Your task to perform on an android device: check battery use Image 0: 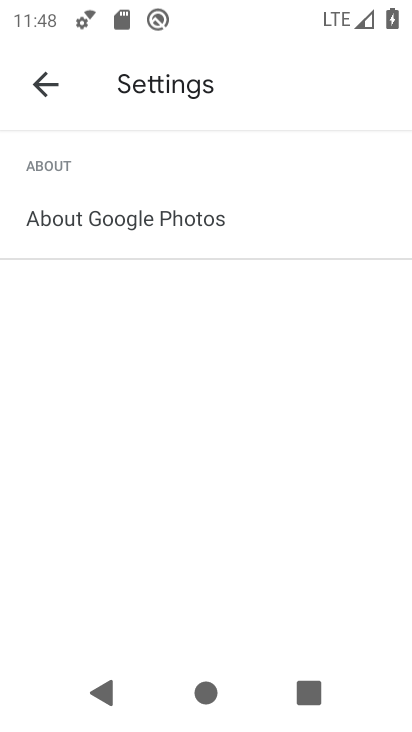
Step 0: press home button
Your task to perform on an android device: check battery use Image 1: 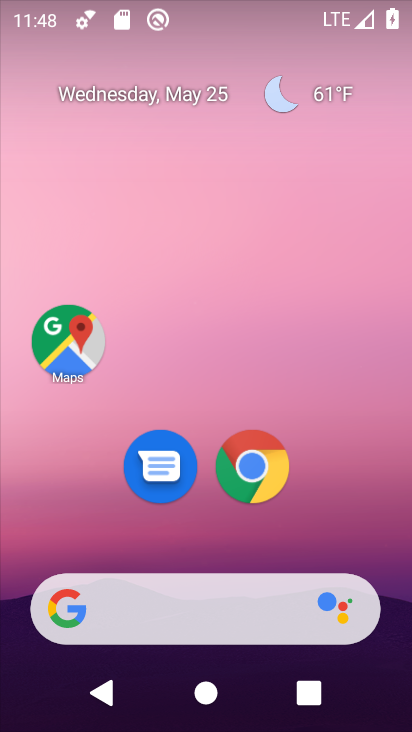
Step 1: drag from (188, 552) to (225, 64)
Your task to perform on an android device: check battery use Image 2: 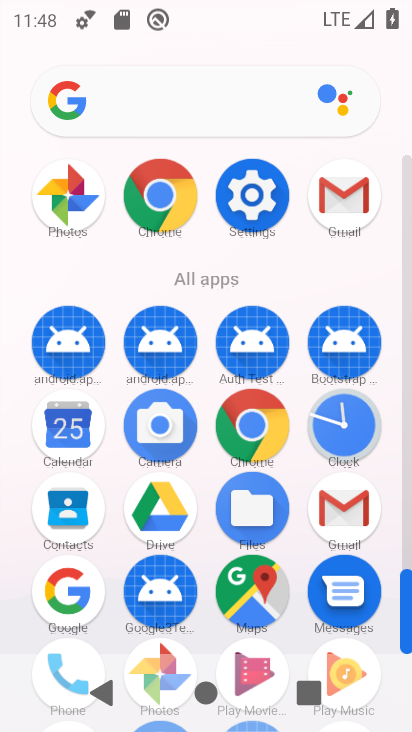
Step 2: click (243, 200)
Your task to perform on an android device: check battery use Image 3: 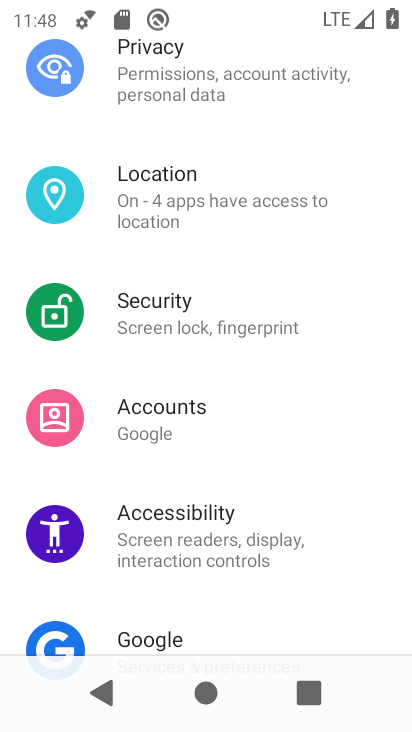
Step 3: drag from (251, 210) to (272, 494)
Your task to perform on an android device: check battery use Image 4: 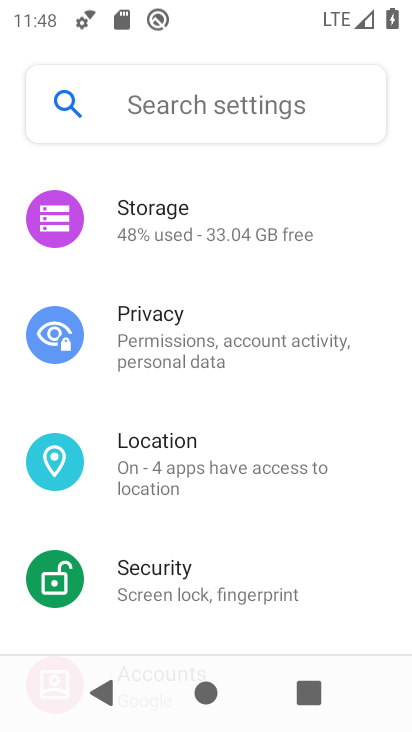
Step 4: drag from (247, 266) to (280, 532)
Your task to perform on an android device: check battery use Image 5: 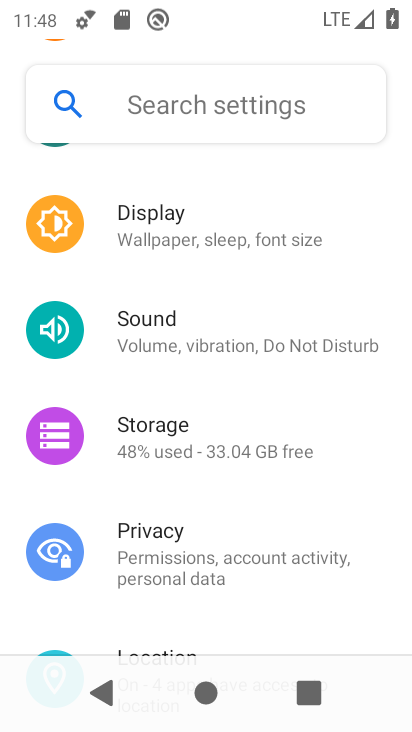
Step 5: drag from (226, 265) to (249, 541)
Your task to perform on an android device: check battery use Image 6: 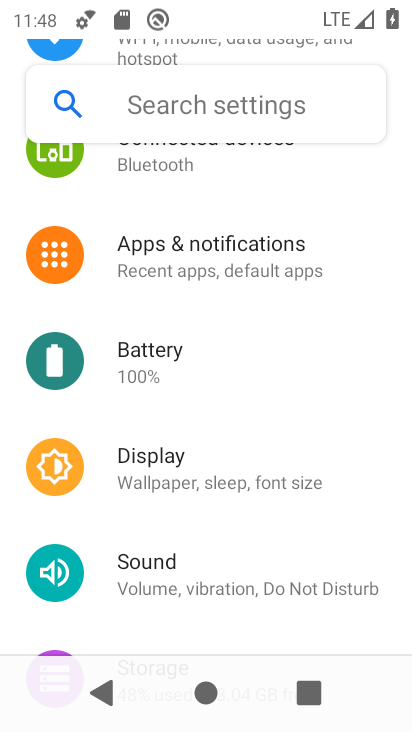
Step 6: click (170, 353)
Your task to perform on an android device: check battery use Image 7: 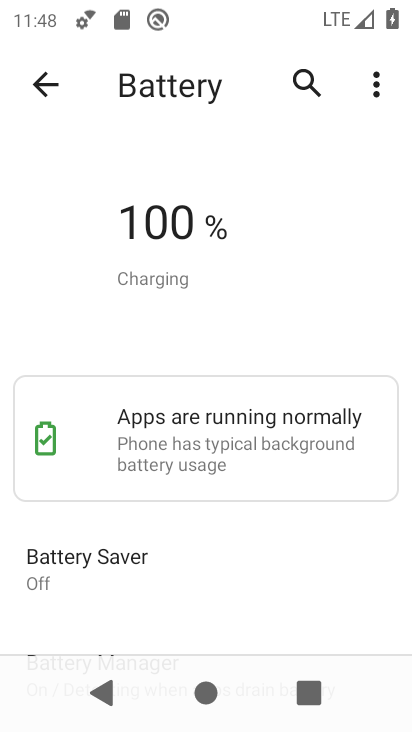
Step 7: task complete